Your task to perform on an android device: Go to display settings Image 0: 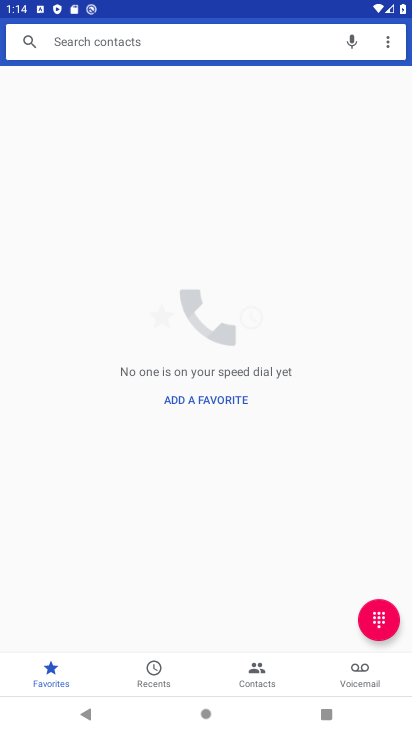
Step 0: press home button
Your task to perform on an android device: Go to display settings Image 1: 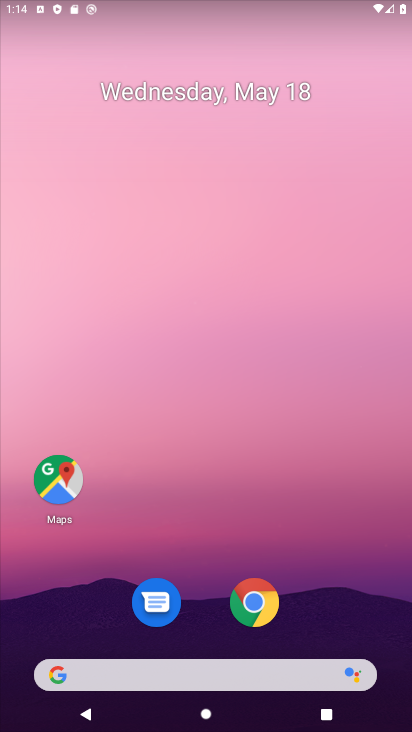
Step 1: drag from (267, 721) to (271, 149)
Your task to perform on an android device: Go to display settings Image 2: 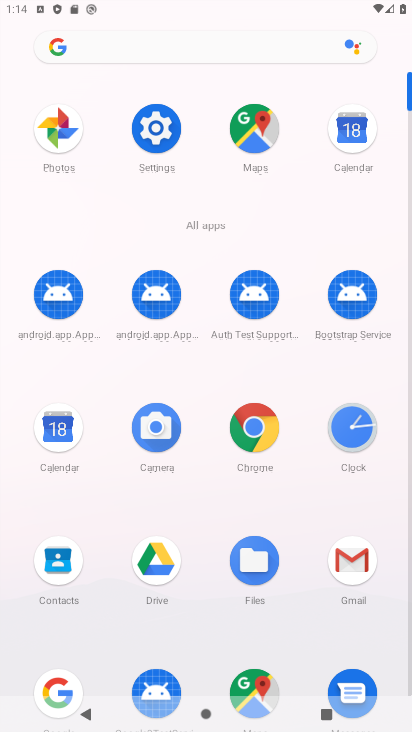
Step 2: click (151, 134)
Your task to perform on an android device: Go to display settings Image 3: 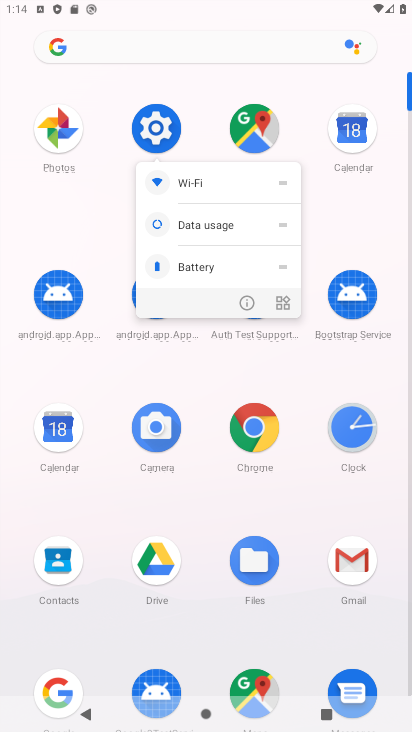
Step 3: click (143, 123)
Your task to perform on an android device: Go to display settings Image 4: 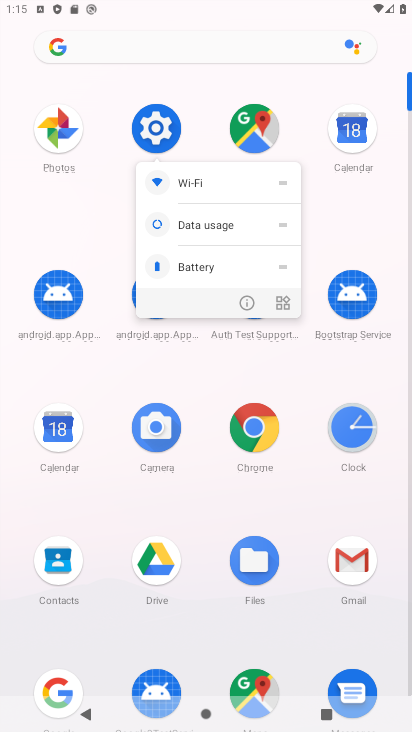
Step 4: click (143, 123)
Your task to perform on an android device: Go to display settings Image 5: 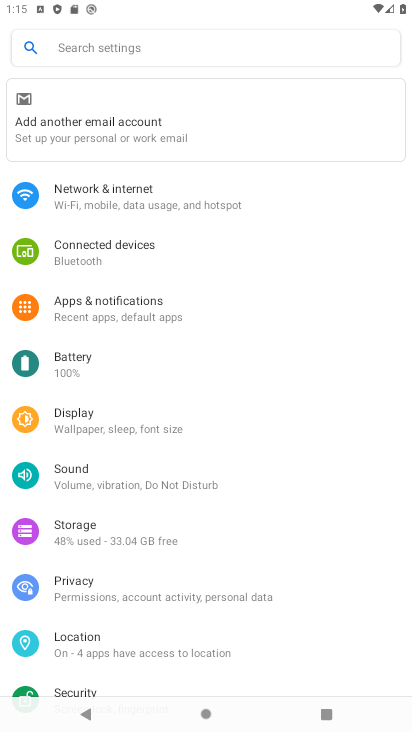
Step 5: click (100, 421)
Your task to perform on an android device: Go to display settings Image 6: 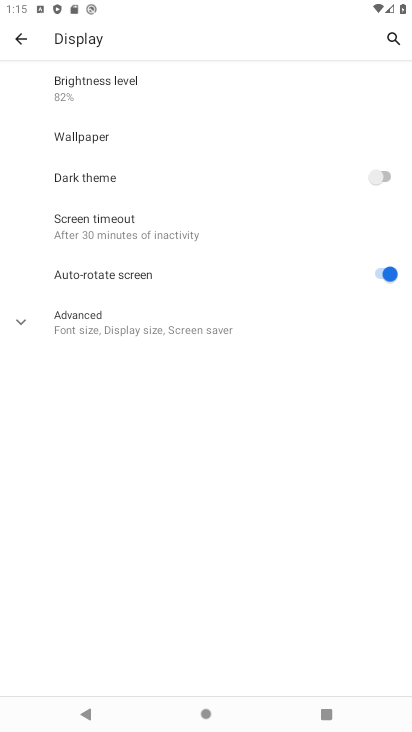
Step 6: task complete